Your task to perform on an android device: Show me productivity apps on the Play Store Image 0: 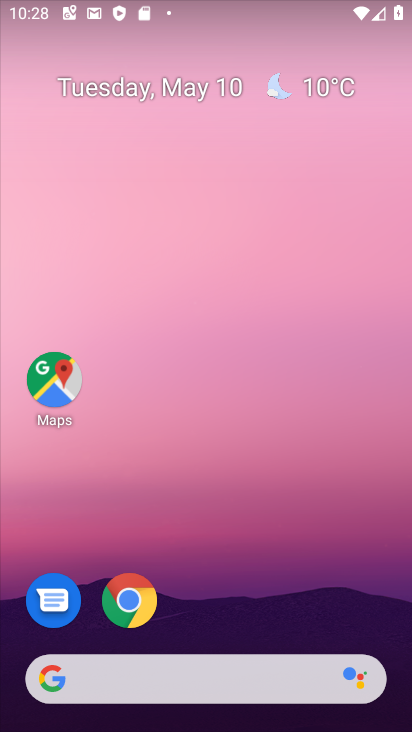
Step 0: click (167, 32)
Your task to perform on an android device: Show me productivity apps on the Play Store Image 1: 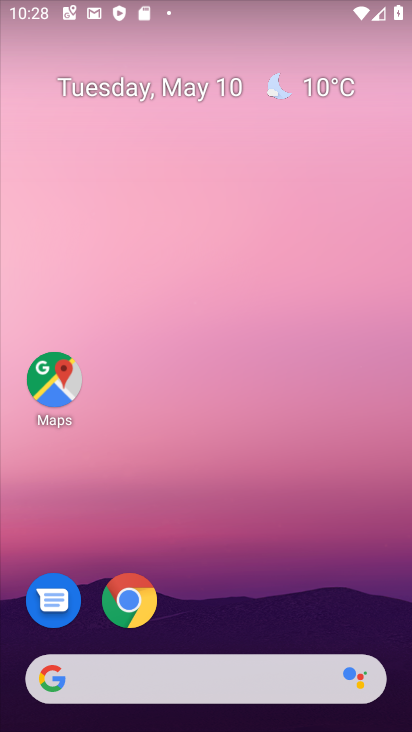
Step 1: drag from (207, 560) to (175, 24)
Your task to perform on an android device: Show me productivity apps on the Play Store Image 2: 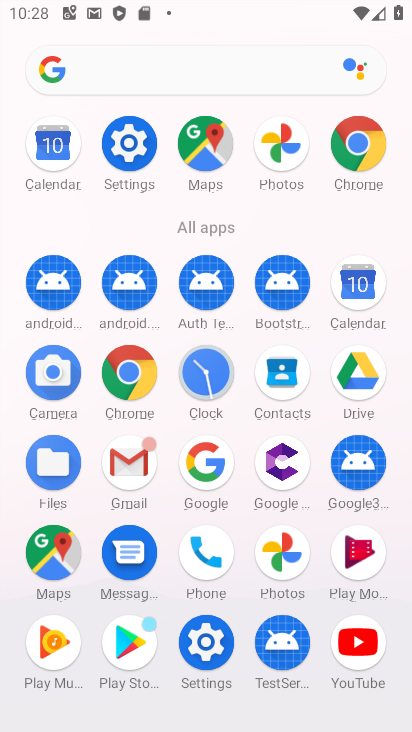
Step 2: drag from (6, 542) to (1, 224)
Your task to perform on an android device: Show me productivity apps on the Play Store Image 3: 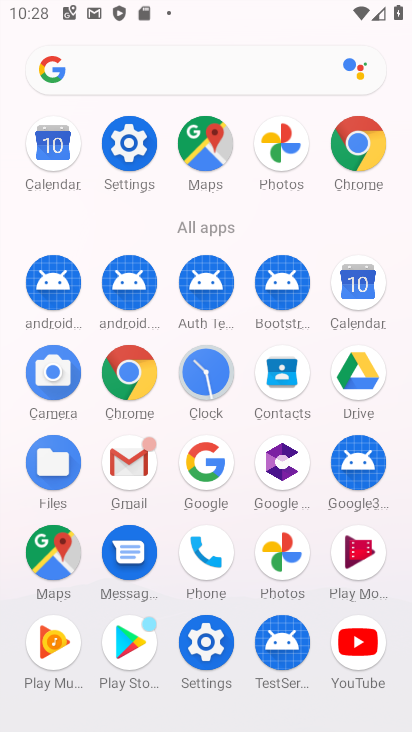
Step 3: click (130, 637)
Your task to perform on an android device: Show me productivity apps on the Play Store Image 4: 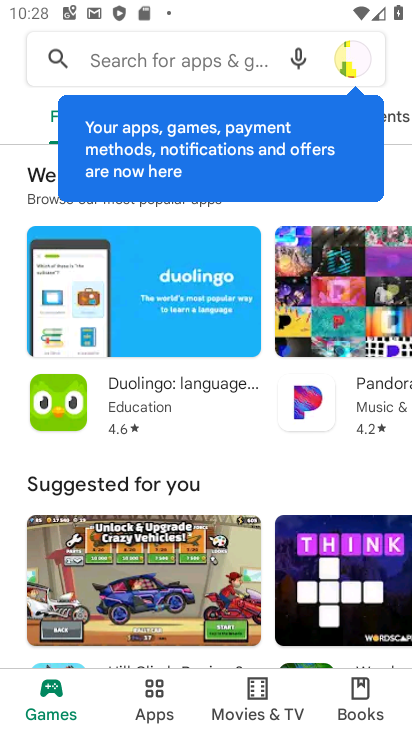
Step 4: click (132, 709)
Your task to perform on an android device: Show me productivity apps on the Play Store Image 5: 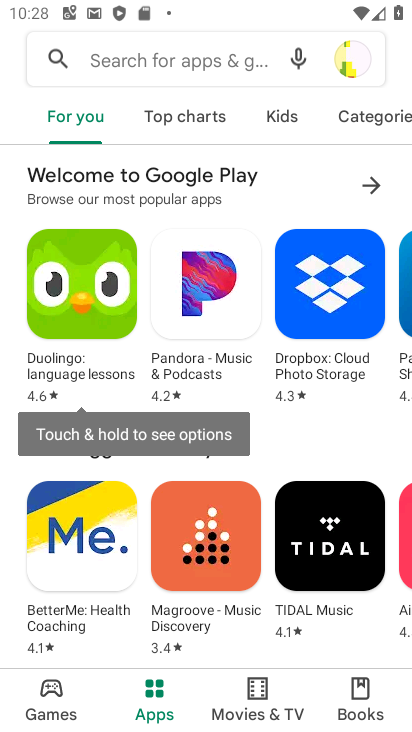
Step 5: click (250, 578)
Your task to perform on an android device: Show me productivity apps on the Play Store Image 6: 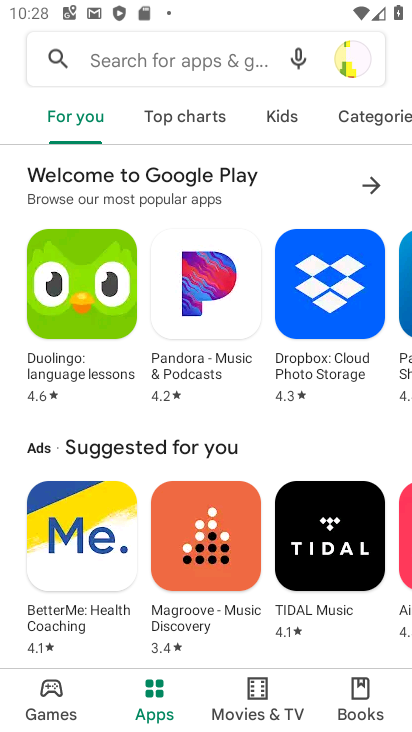
Step 6: drag from (344, 114) to (281, 118)
Your task to perform on an android device: Show me productivity apps on the Play Store Image 7: 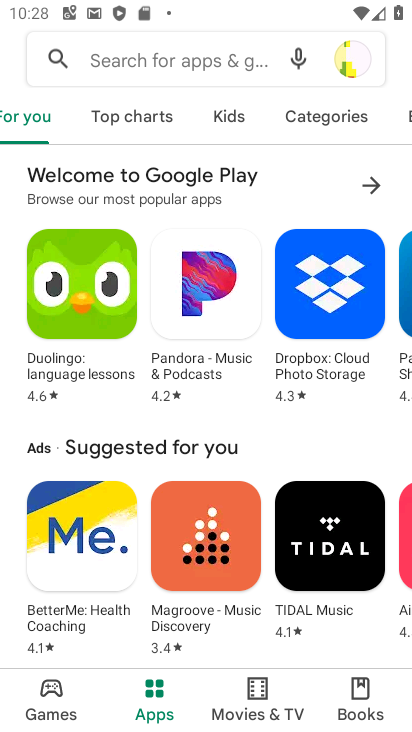
Step 7: click (304, 119)
Your task to perform on an android device: Show me productivity apps on the Play Store Image 8: 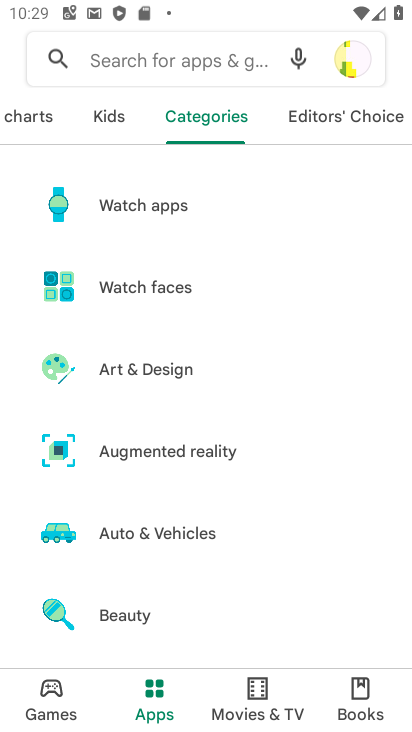
Step 8: drag from (254, 546) to (258, 198)
Your task to perform on an android device: Show me productivity apps on the Play Store Image 9: 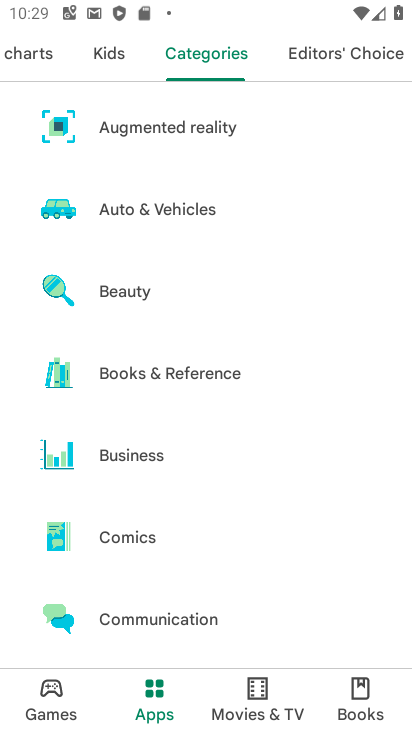
Step 9: drag from (241, 457) to (267, 198)
Your task to perform on an android device: Show me productivity apps on the Play Store Image 10: 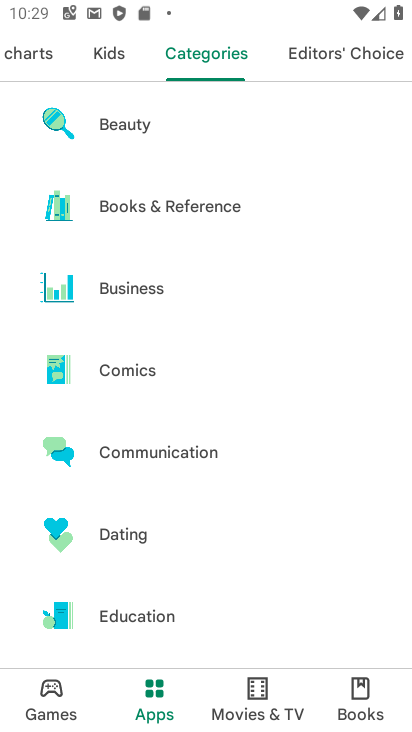
Step 10: drag from (237, 533) to (262, 208)
Your task to perform on an android device: Show me productivity apps on the Play Store Image 11: 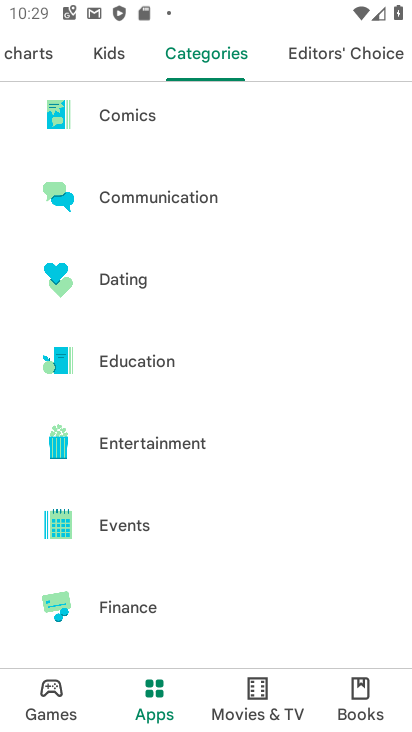
Step 11: drag from (234, 554) to (277, 100)
Your task to perform on an android device: Show me productivity apps on the Play Store Image 12: 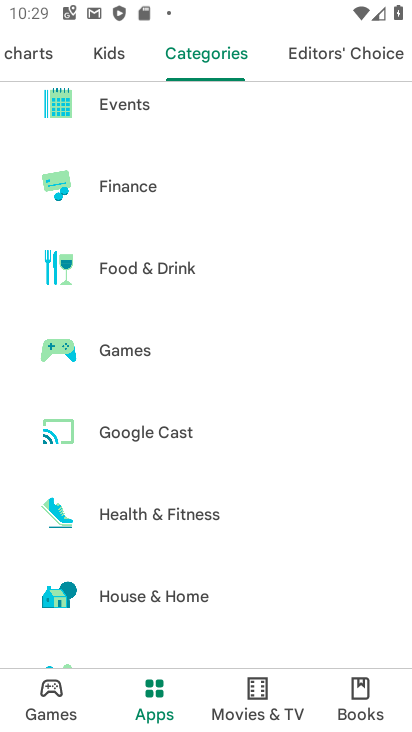
Step 12: drag from (210, 550) to (226, 181)
Your task to perform on an android device: Show me productivity apps on the Play Store Image 13: 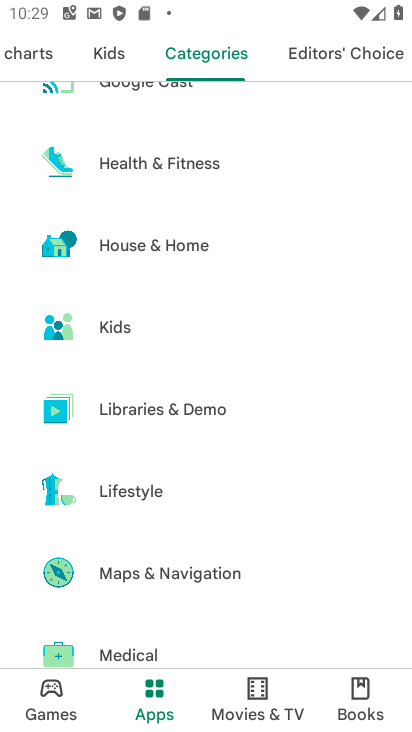
Step 13: drag from (207, 588) to (236, 217)
Your task to perform on an android device: Show me productivity apps on the Play Store Image 14: 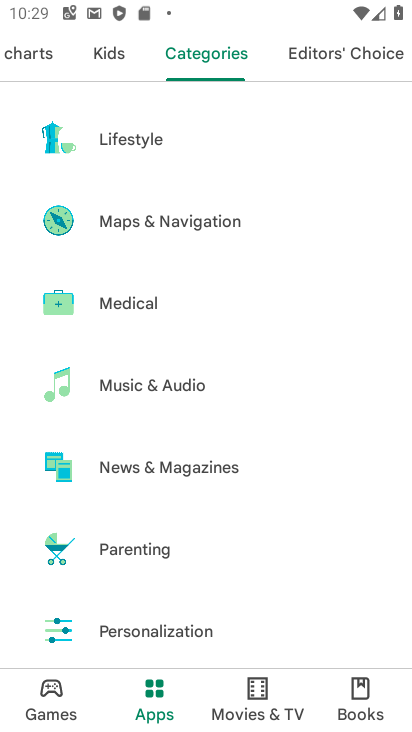
Step 14: drag from (231, 590) to (269, 243)
Your task to perform on an android device: Show me productivity apps on the Play Store Image 15: 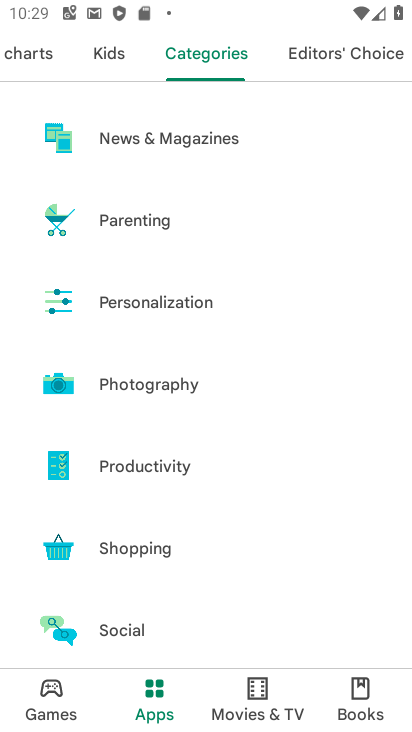
Step 15: click (174, 470)
Your task to perform on an android device: Show me productivity apps on the Play Store Image 16: 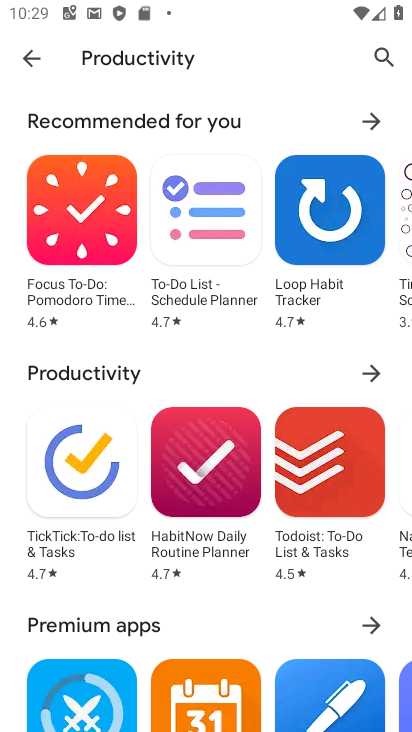
Step 16: task complete